Your task to perform on an android device: What's on my calendar tomorrow? Image 0: 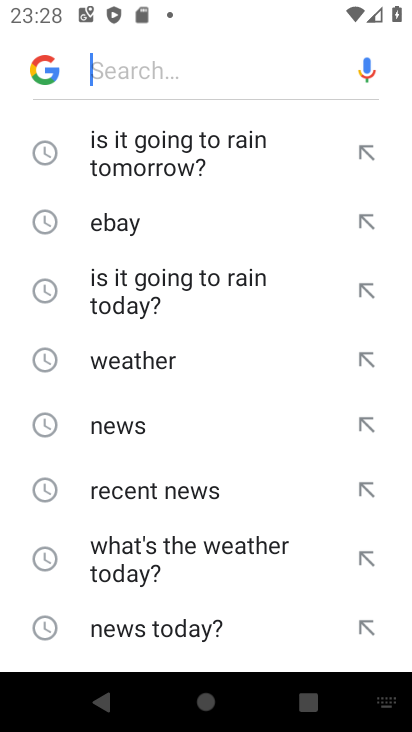
Step 0: press home button
Your task to perform on an android device: What's on my calendar tomorrow? Image 1: 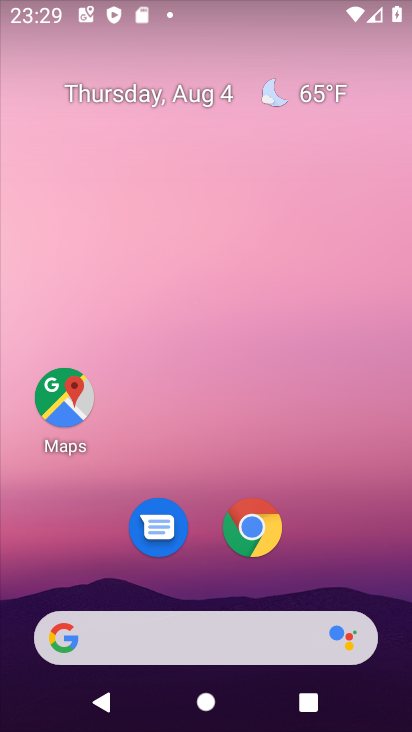
Step 1: drag from (250, 716) to (335, 150)
Your task to perform on an android device: What's on my calendar tomorrow? Image 2: 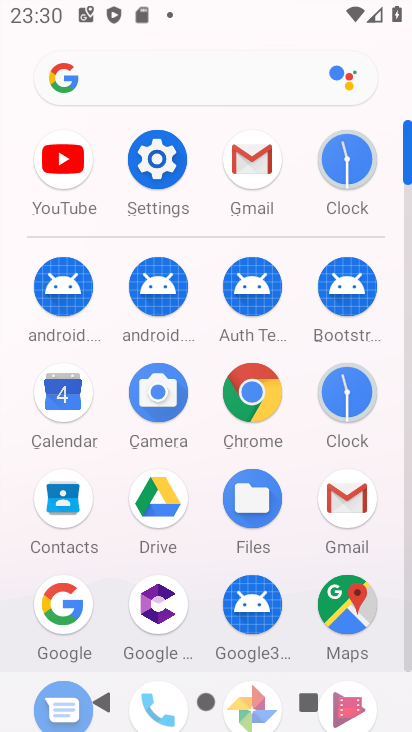
Step 2: click (62, 391)
Your task to perform on an android device: What's on my calendar tomorrow? Image 3: 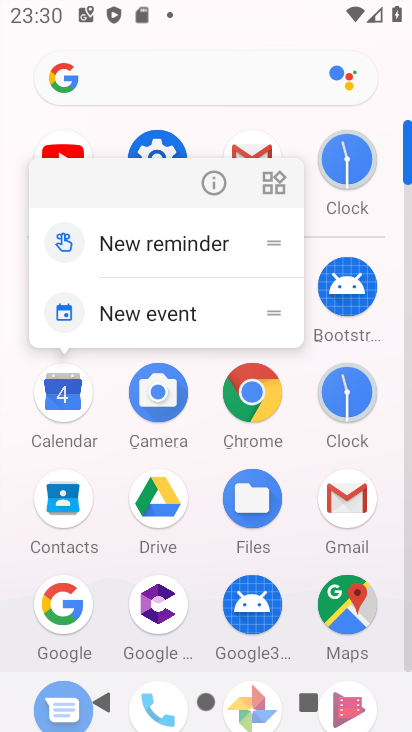
Step 3: click (62, 391)
Your task to perform on an android device: What's on my calendar tomorrow? Image 4: 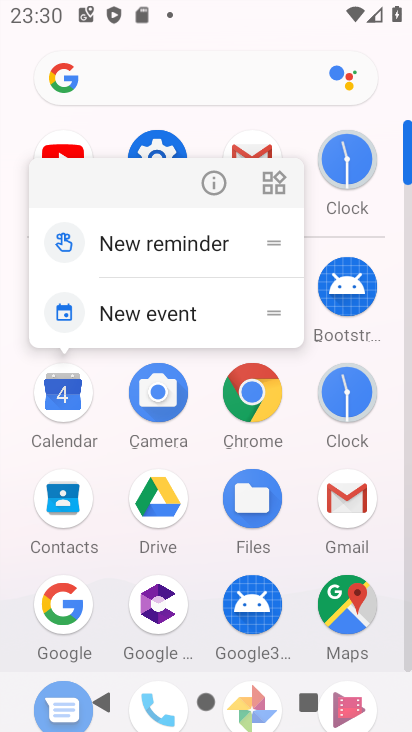
Step 4: click (60, 405)
Your task to perform on an android device: What's on my calendar tomorrow? Image 5: 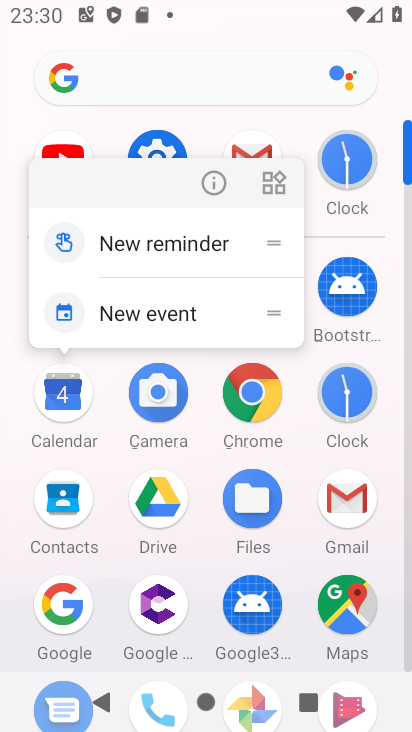
Step 5: click (60, 405)
Your task to perform on an android device: What's on my calendar tomorrow? Image 6: 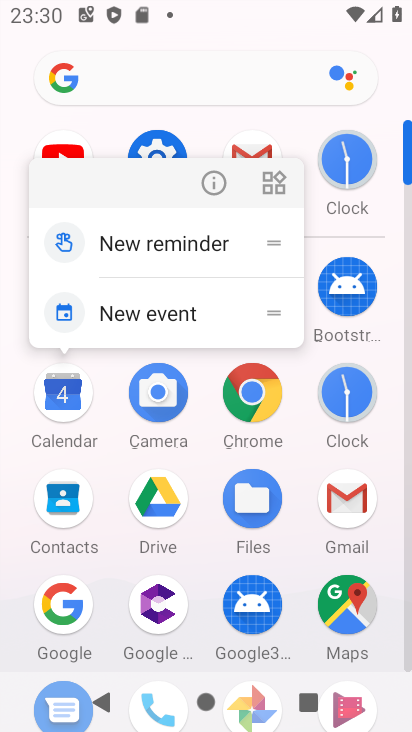
Step 6: click (60, 405)
Your task to perform on an android device: What's on my calendar tomorrow? Image 7: 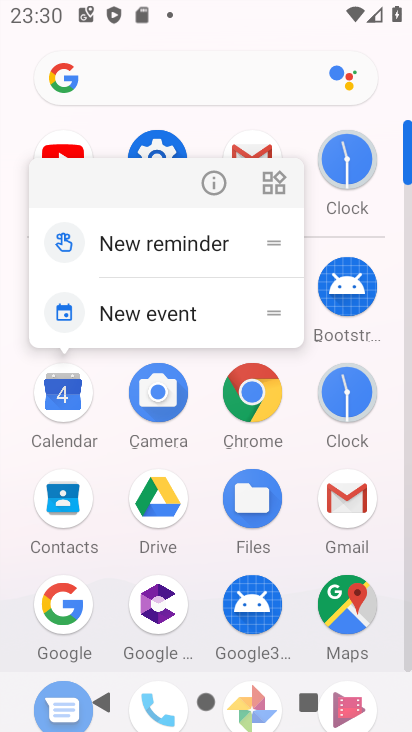
Step 7: click (67, 415)
Your task to perform on an android device: What's on my calendar tomorrow? Image 8: 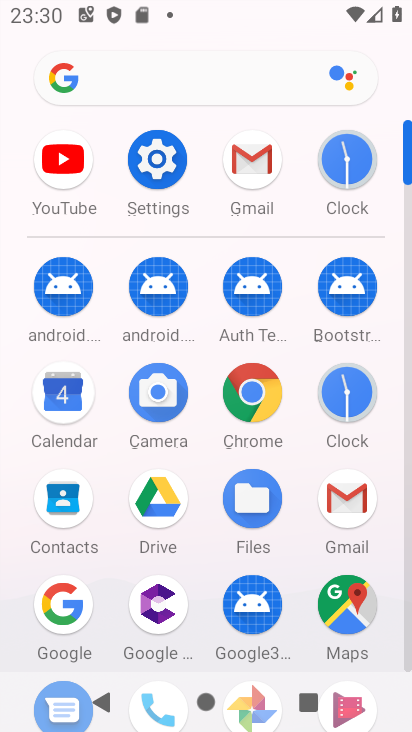
Step 8: click (67, 415)
Your task to perform on an android device: What's on my calendar tomorrow? Image 9: 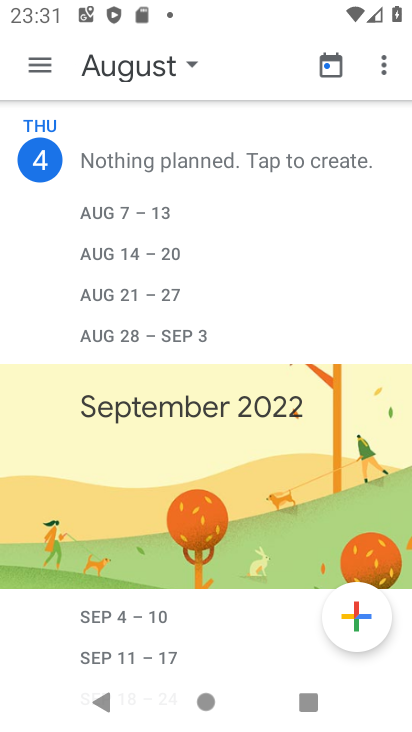
Step 9: click (144, 59)
Your task to perform on an android device: What's on my calendar tomorrow? Image 10: 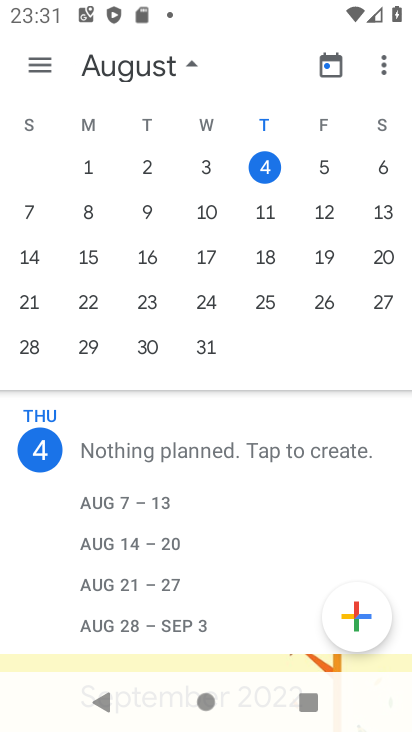
Step 10: click (322, 170)
Your task to perform on an android device: What's on my calendar tomorrow? Image 11: 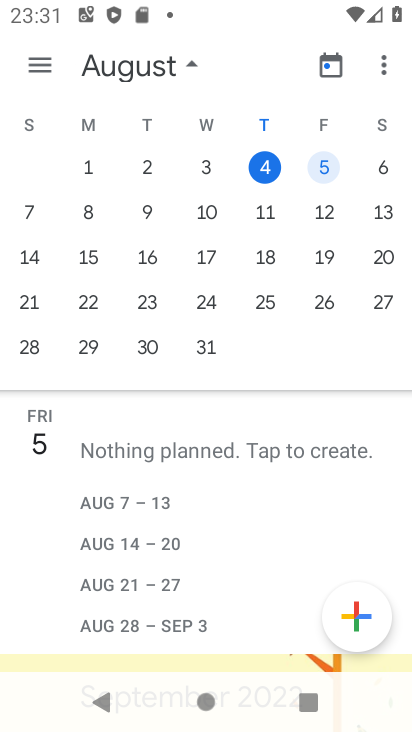
Step 11: task complete